Your task to perform on an android device: Turn on the flashlight Image 0: 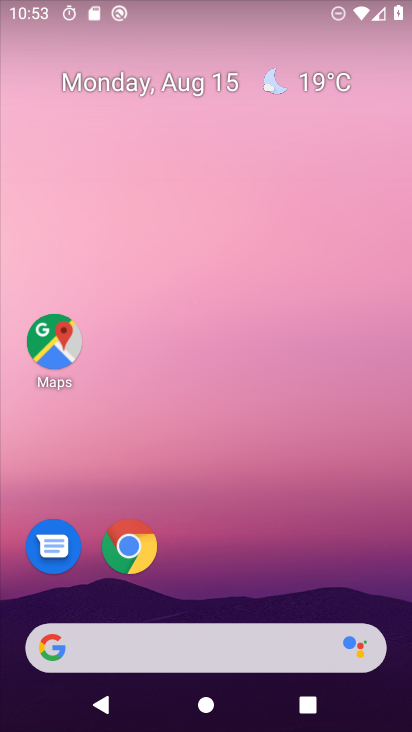
Step 0: drag from (222, 614) to (216, 44)
Your task to perform on an android device: Turn on the flashlight Image 1: 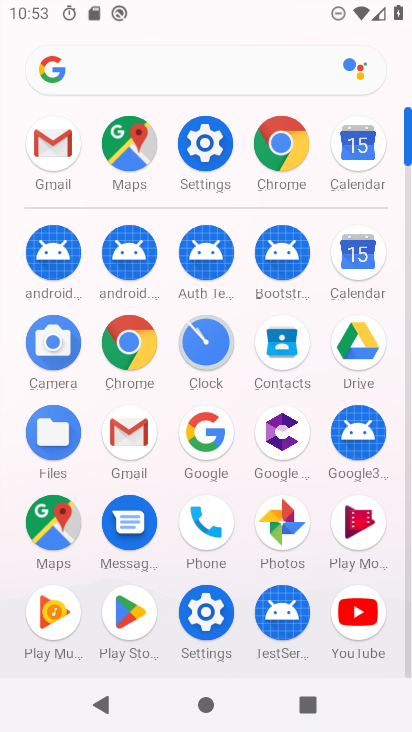
Step 1: click (202, 147)
Your task to perform on an android device: Turn on the flashlight Image 2: 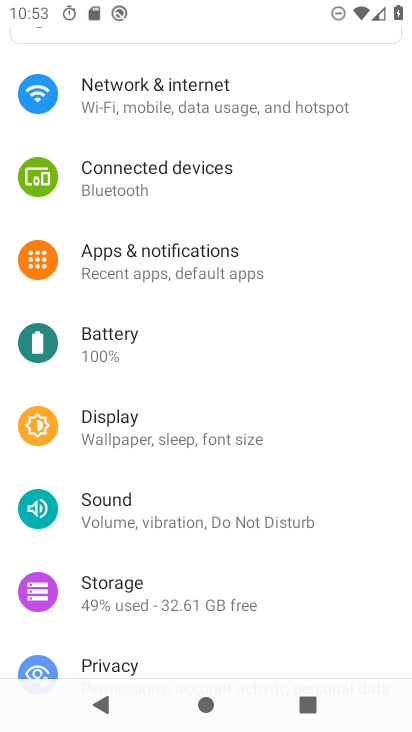
Step 2: drag from (181, 606) to (173, 277)
Your task to perform on an android device: Turn on the flashlight Image 3: 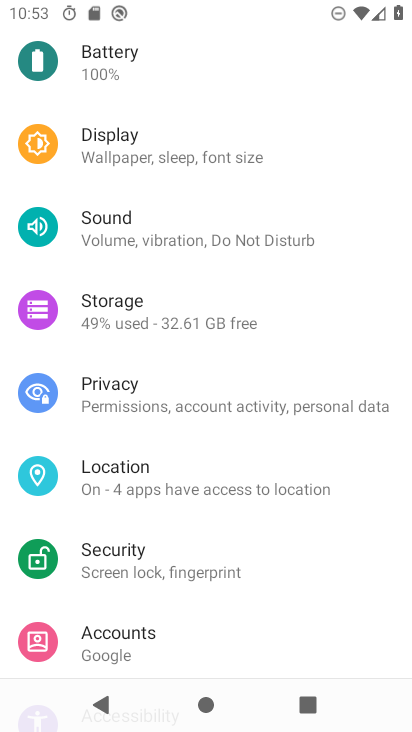
Step 3: drag from (135, 623) to (135, 242)
Your task to perform on an android device: Turn on the flashlight Image 4: 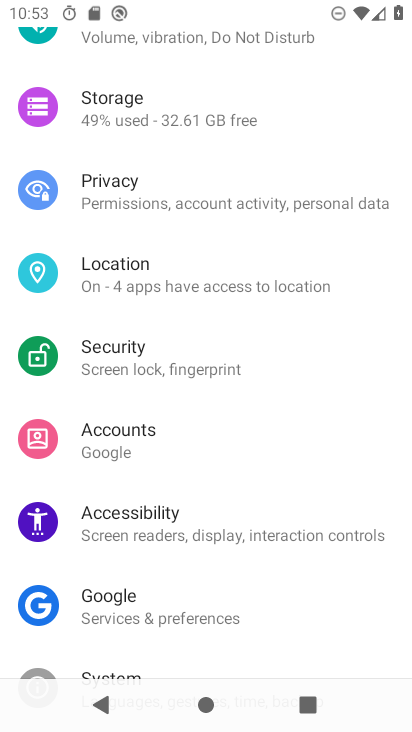
Step 4: click (150, 255)
Your task to perform on an android device: Turn on the flashlight Image 5: 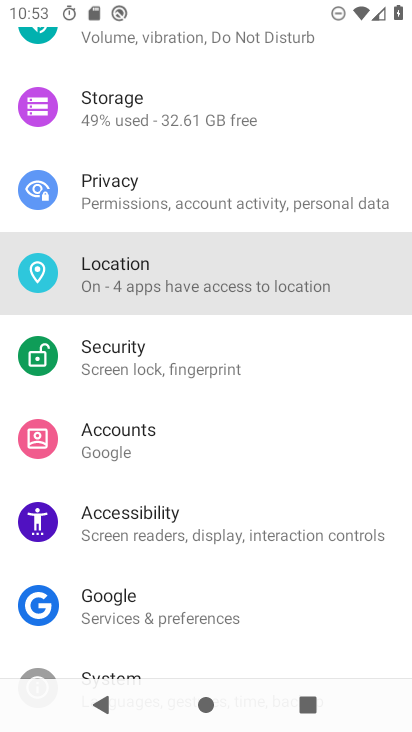
Step 5: drag from (154, 616) to (42, 61)
Your task to perform on an android device: Turn on the flashlight Image 6: 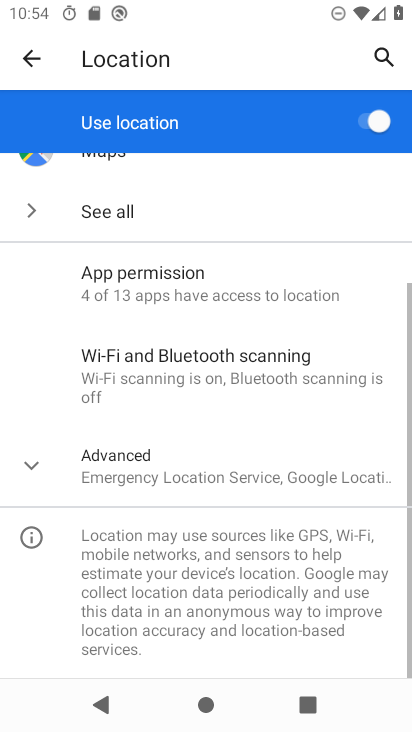
Step 6: click (34, 56)
Your task to perform on an android device: Turn on the flashlight Image 7: 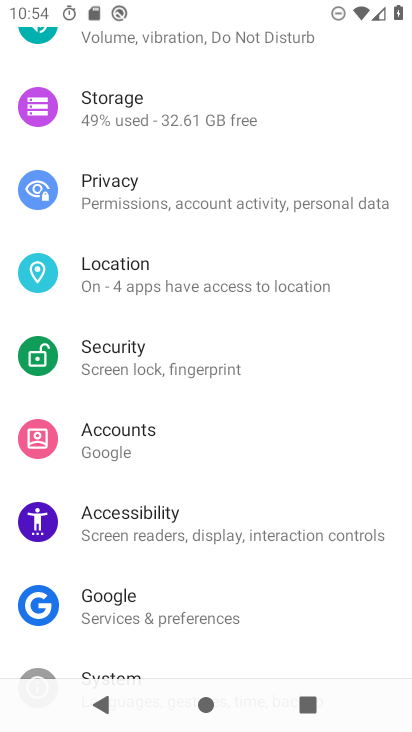
Step 7: task complete